Your task to perform on an android device: toggle sleep mode Image 0: 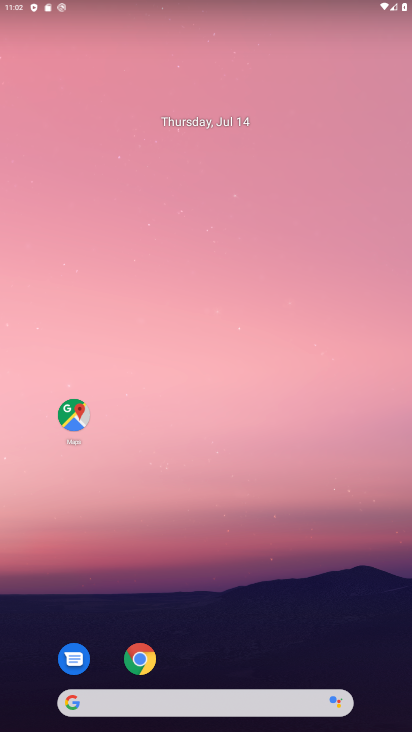
Step 0: drag from (265, 632) to (258, 126)
Your task to perform on an android device: toggle sleep mode Image 1: 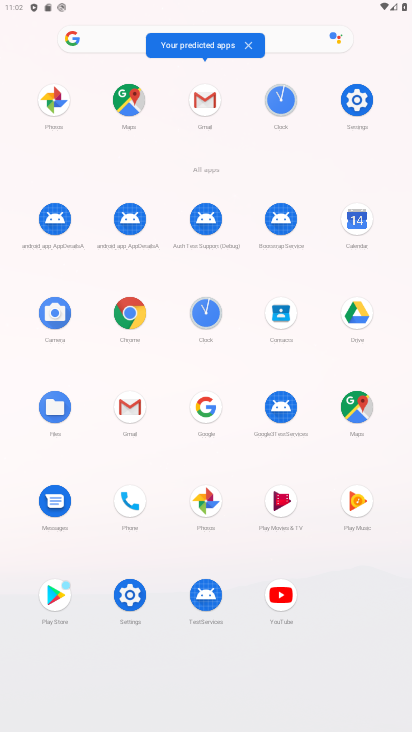
Step 1: click (359, 90)
Your task to perform on an android device: toggle sleep mode Image 2: 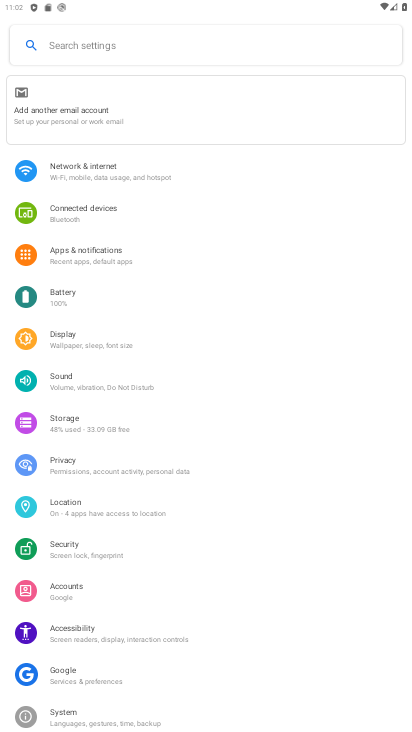
Step 2: click (98, 337)
Your task to perform on an android device: toggle sleep mode Image 3: 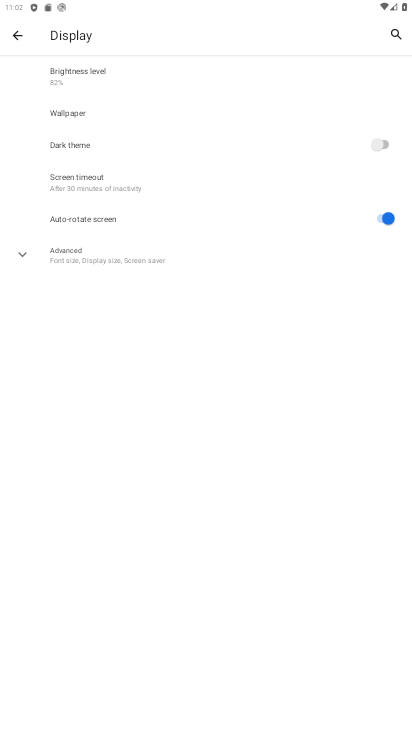
Step 3: click (137, 257)
Your task to perform on an android device: toggle sleep mode Image 4: 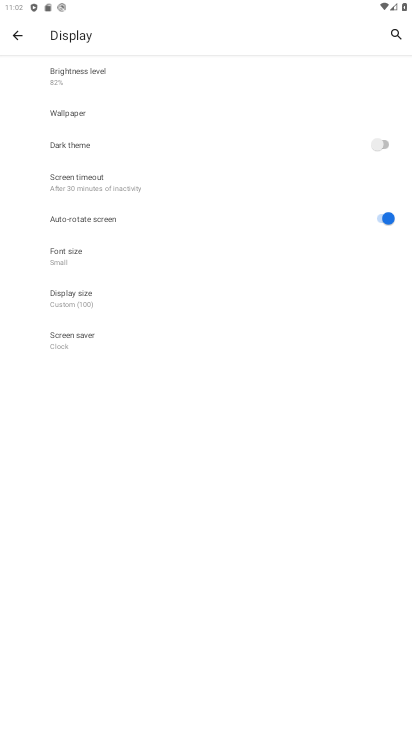
Step 4: task complete